Your task to perform on an android device: Open calendar and show me the third week of next month Image 0: 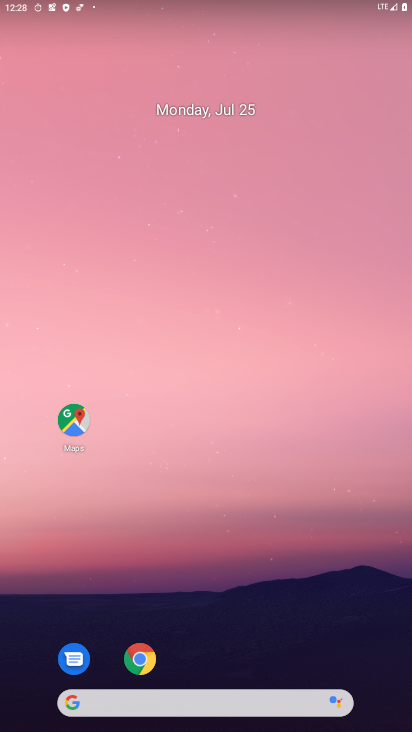
Step 0: drag from (47, 701) to (295, 26)
Your task to perform on an android device: Open calendar and show me the third week of next month Image 1: 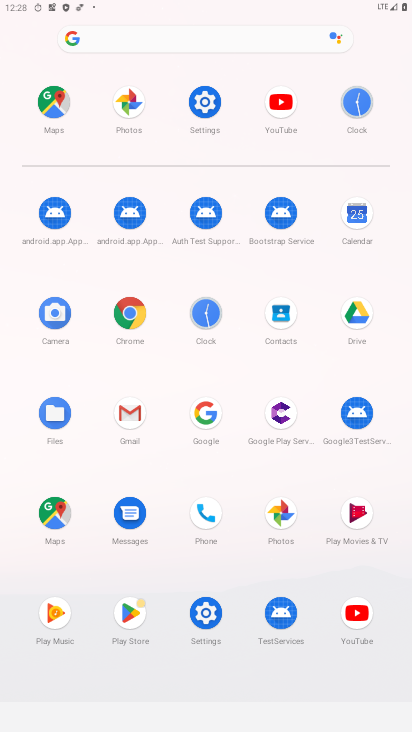
Step 1: click (360, 223)
Your task to perform on an android device: Open calendar and show me the third week of next month Image 2: 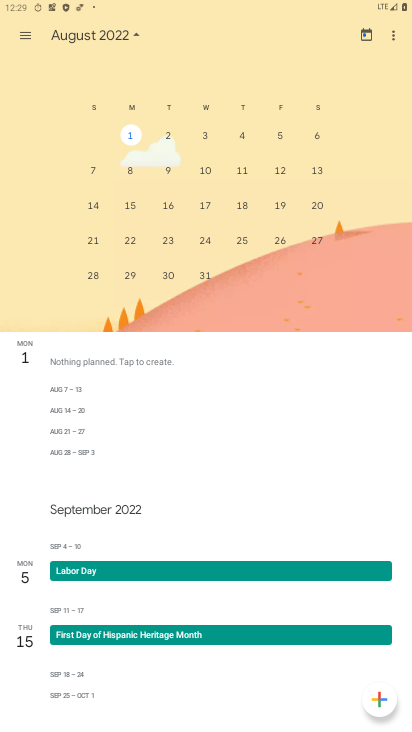
Step 2: click (127, 202)
Your task to perform on an android device: Open calendar and show me the third week of next month Image 3: 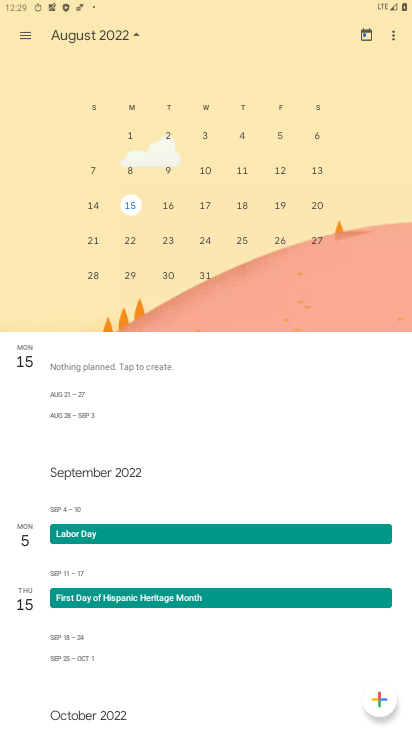
Step 3: task complete